Your task to perform on an android device: turn off data saver in the chrome app Image 0: 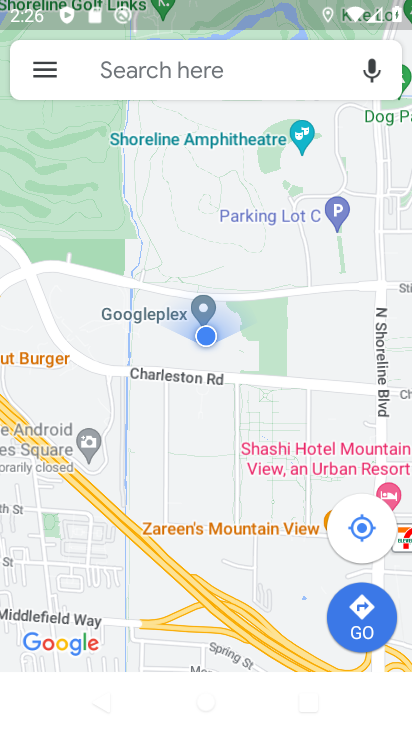
Step 0: click (40, 76)
Your task to perform on an android device: turn off data saver in the chrome app Image 1: 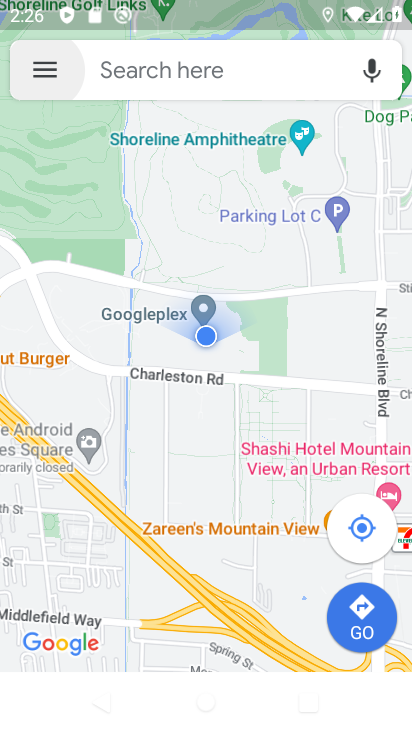
Step 1: click (40, 76)
Your task to perform on an android device: turn off data saver in the chrome app Image 2: 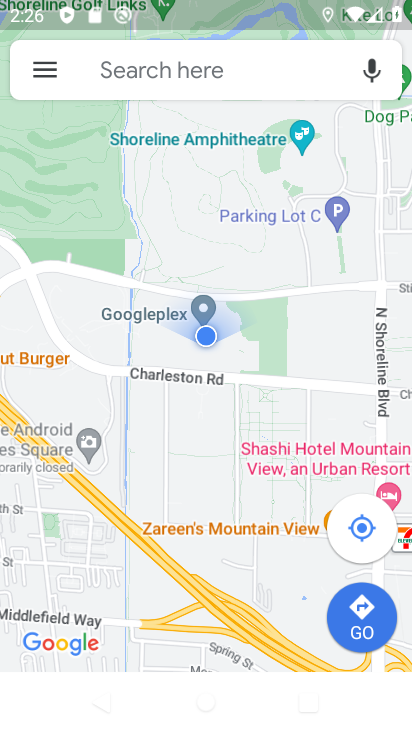
Step 2: click (53, 74)
Your task to perform on an android device: turn off data saver in the chrome app Image 3: 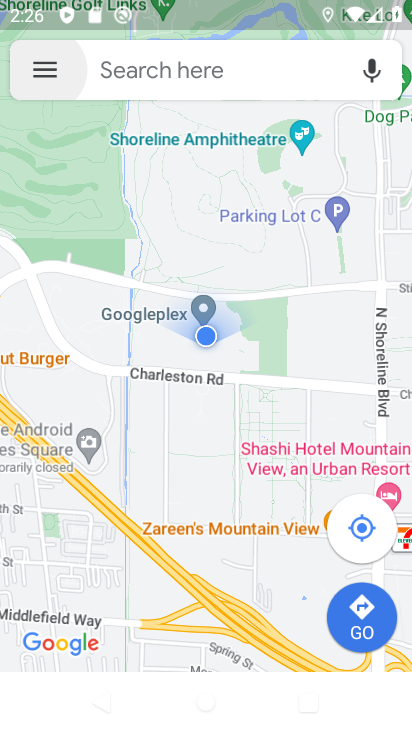
Step 3: click (53, 74)
Your task to perform on an android device: turn off data saver in the chrome app Image 4: 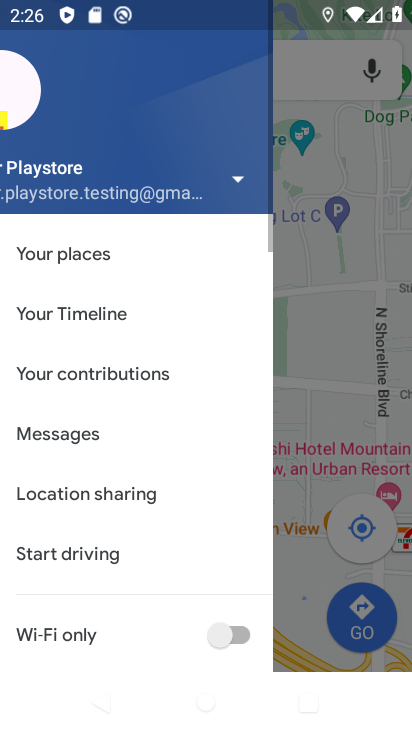
Step 4: click (53, 74)
Your task to perform on an android device: turn off data saver in the chrome app Image 5: 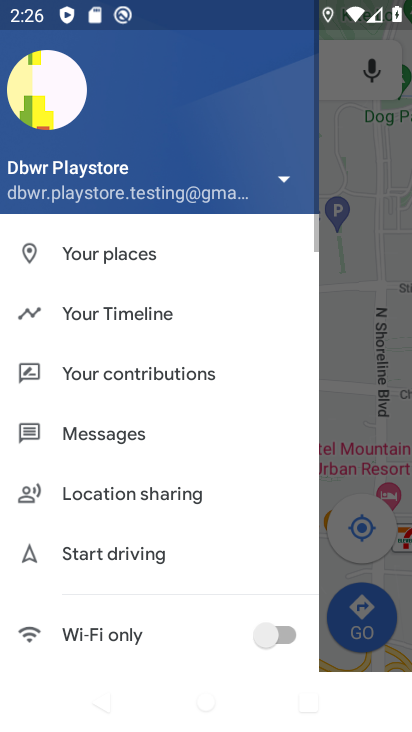
Step 5: click (53, 74)
Your task to perform on an android device: turn off data saver in the chrome app Image 6: 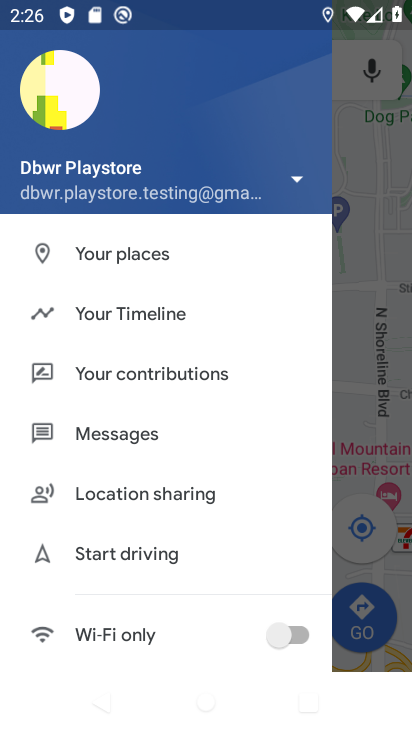
Step 6: press back button
Your task to perform on an android device: turn off data saver in the chrome app Image 7: 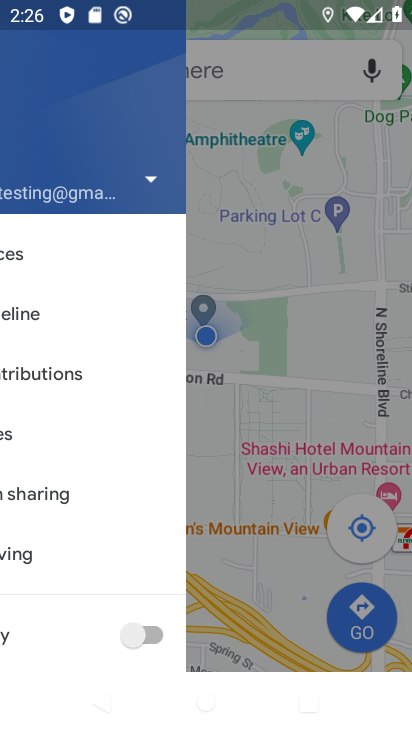
Step 7: press back button
Your task to perform on an android device: turn off data saver in the chrome app Image 8: 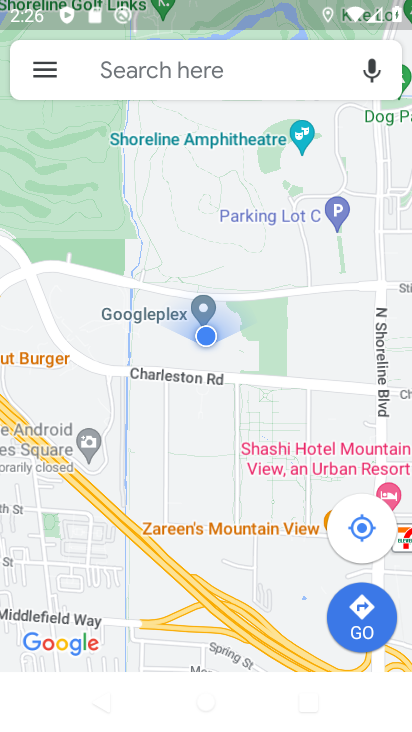
Step 8: press back button
Your task to perform on an android device: turn off data saver in the chrome app Image 9: 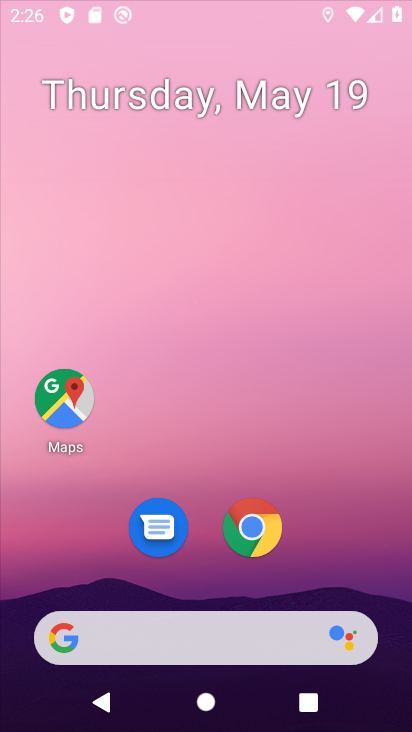
Step 9: press back button
Your task to perform on an android device: turn off data saver in the chrome app Image 10: 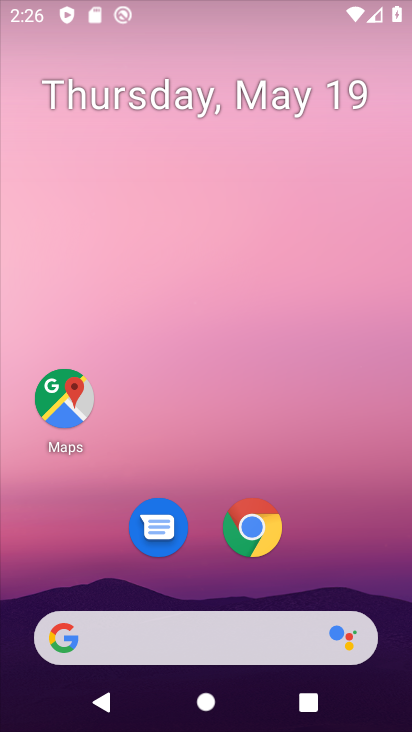
Step 10: press back button
Your task to perform on an android device: turn off data saver in the chrome app Image 11: 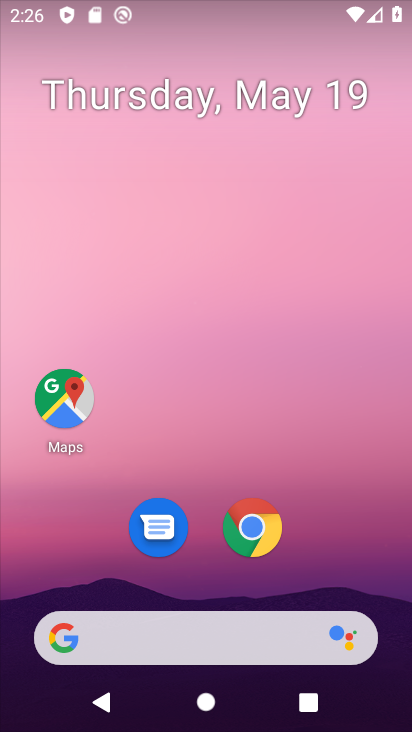
Step 11: press back button
Your task to perform on an android device: turn off data saver in the chrome app Image 12: 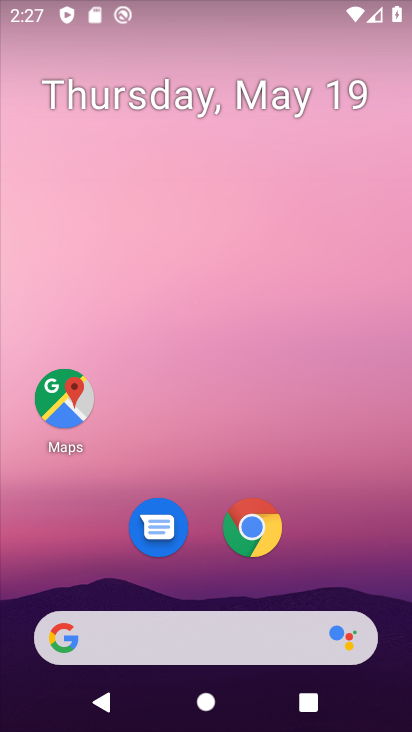
Step 12: press back button
Your task to perform on an android device: turn off data saver in the chrome app Image 13: 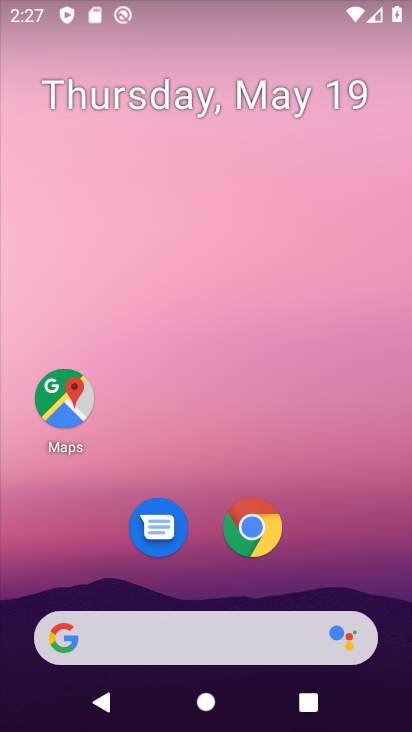
Step 13: drag from (321, 596) to (153, 25)
Your task to perform on an android device: turn off data saver in the chrome app Image 14: 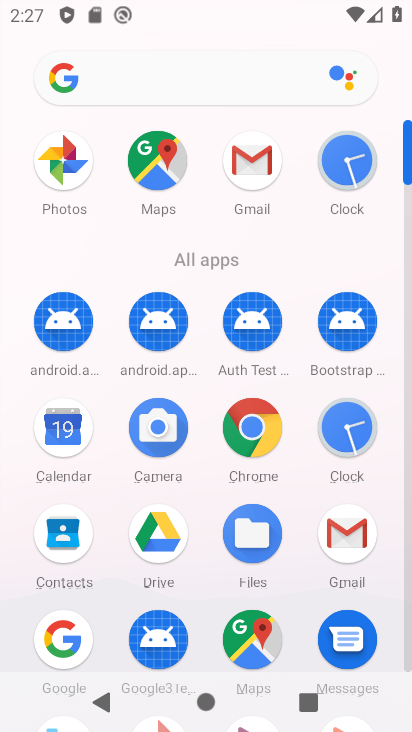
Step 14: drag from (248, 564) to (158, 45)
Your task to perform on an android device: turn off data saver in the chrome app Image 15: 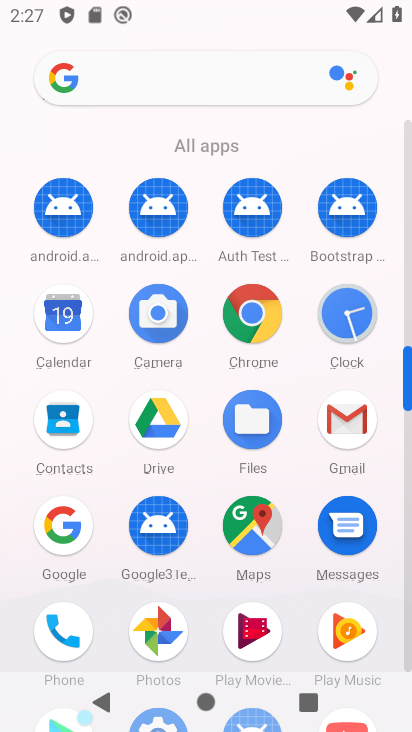
Step 15: click (235, 318)
Your task to perform on an android device: turn off data saver in the chrome app Image 16: 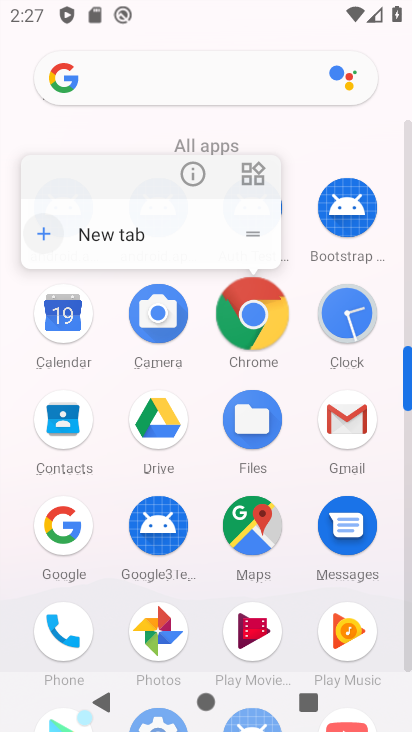
Step 16: click (238, 321)
Your task to perform on an android device: turn off data saver in the chrome app Image 17: 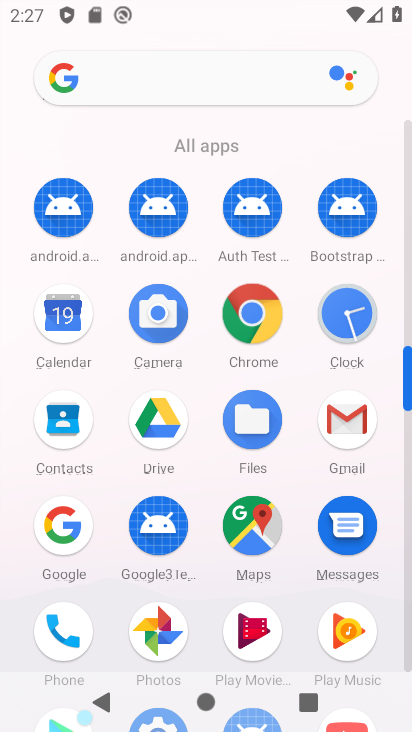
Step 17: click (239, 319)
Your task to perform on an android device: turn off data saver in the chrome app Image 18: 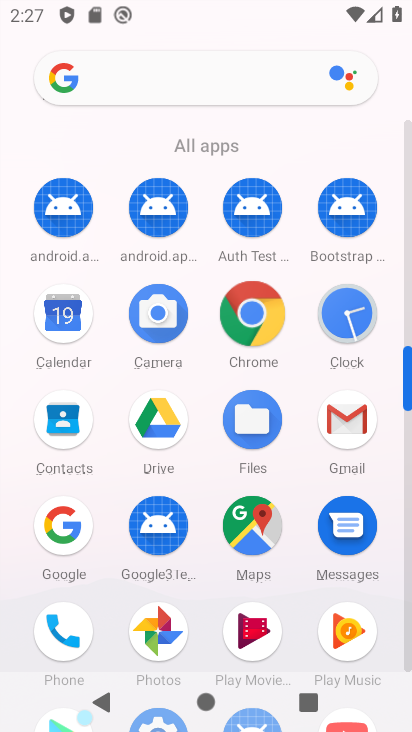
Step 18: click (239, 319)
Your task to perform on an android device: turn off data saver in the chrome app Image 19: 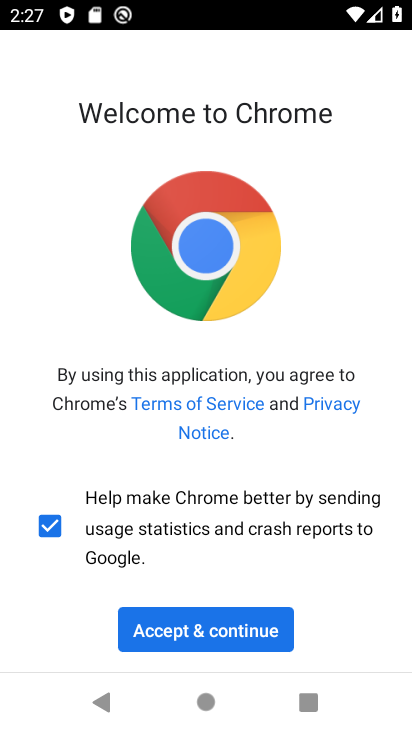
Step 19: click (211, 629)
Your task to perform on an android device: turn off data saver in the chrome app Image 20: 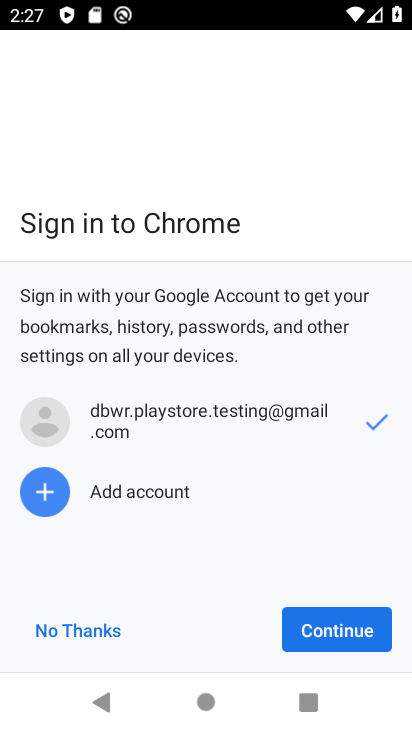
Step 20: click (210, 629)
Your task to perform on an android device: turn off data saver in the chrome app Image 21: 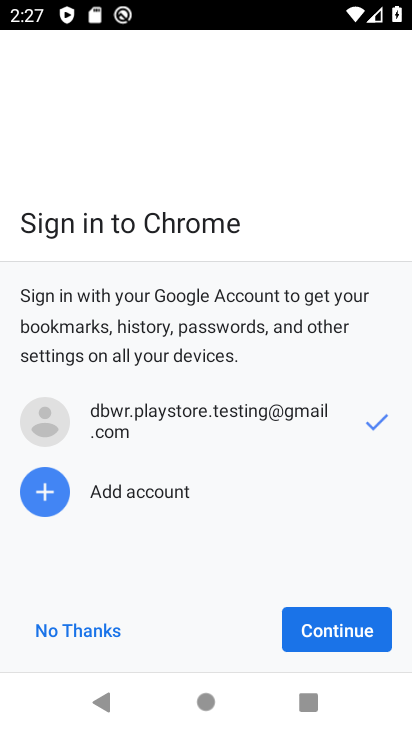
Step 21: click (211, 626)
Your task to perform on an android device: turn off data saver in the chrome app Image 22: 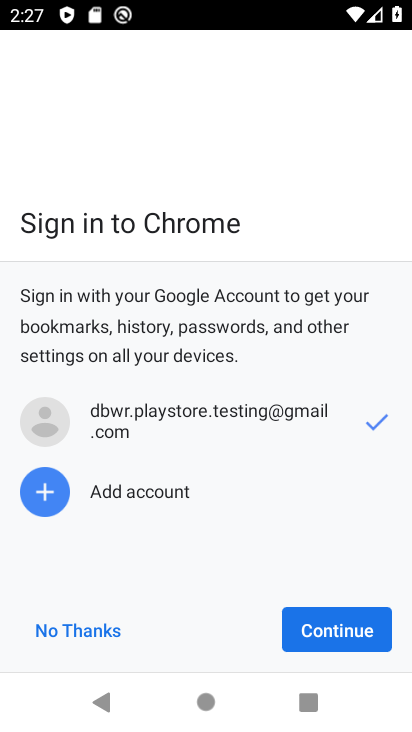
Step 22: click (335, 638)
Your task to perform on an android device: turn off data saver in the chrome app Image 23: 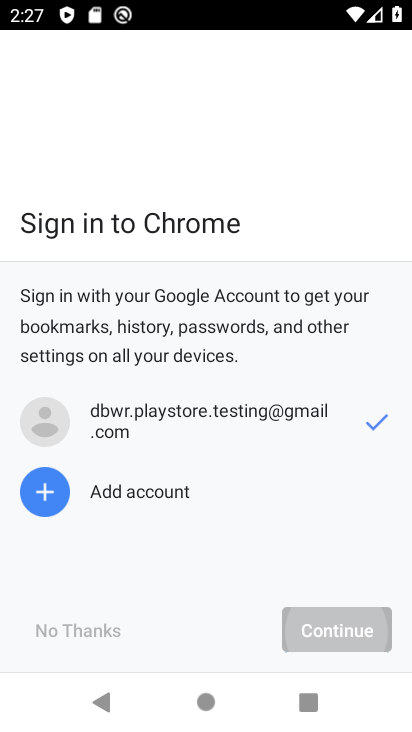
Step 23: click (336, 638)
Your task to perform on an android device: turn off data saver in the chrome app Image 24: 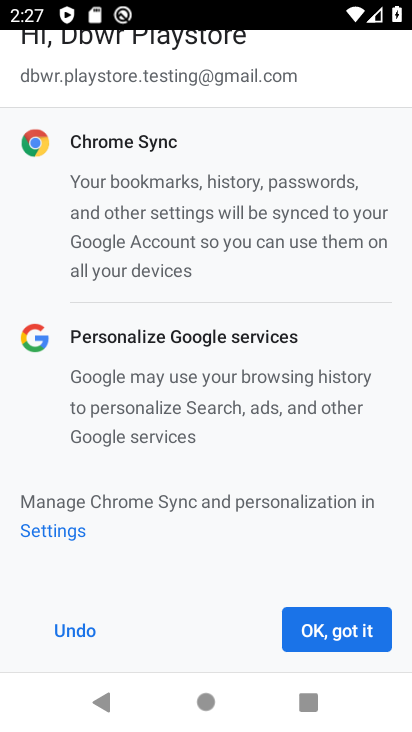
Step 24: click (344, 616)
Your task to perform on an android device: turn off data saver in the chrome app Image 25: 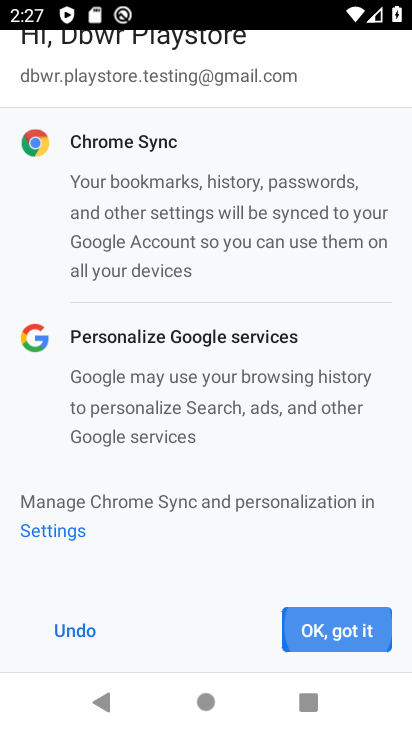
Step 25: click (344, 616)
Your task to perform on an android device: turn off data saver in the chrome app Image 26: 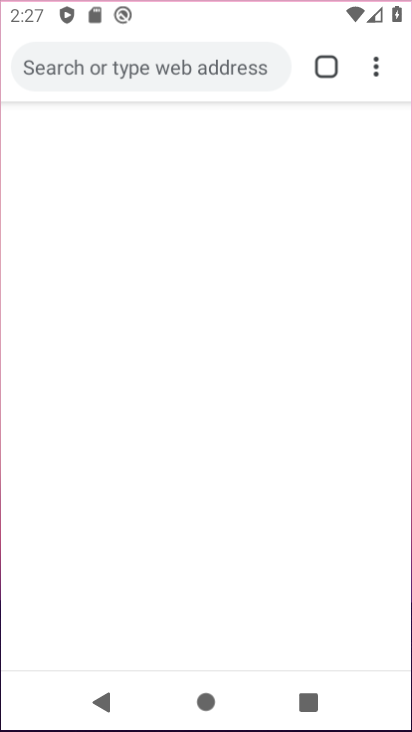
Step 26: click (356, 603)
Your task to perform on an android device: turn off data saver in the chrome app Image 27: 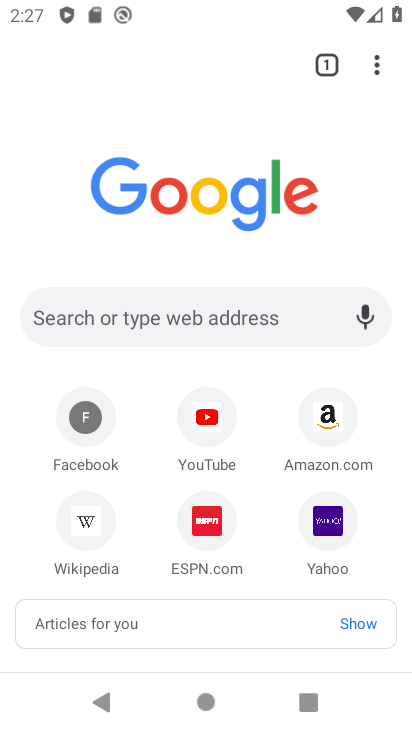
Step 27: drag from (373, 62) to (140, 544)
Your task to perform on an android device: turn off data saver in the chrome app Image 28: 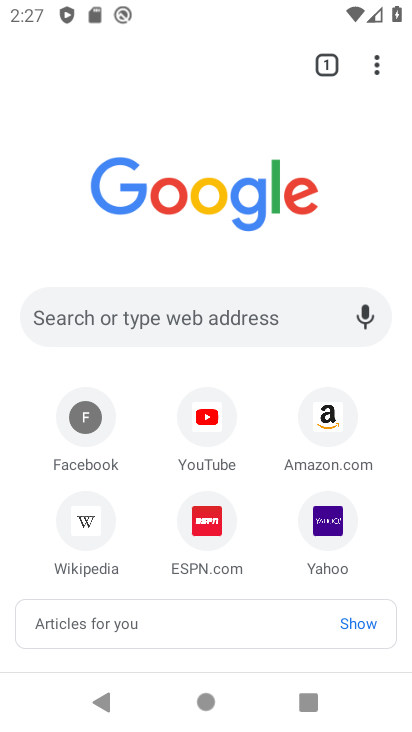
Step 28: click (139, 545)
Your task to perform on an android device: turn off data saver in the chrome app Image 29: 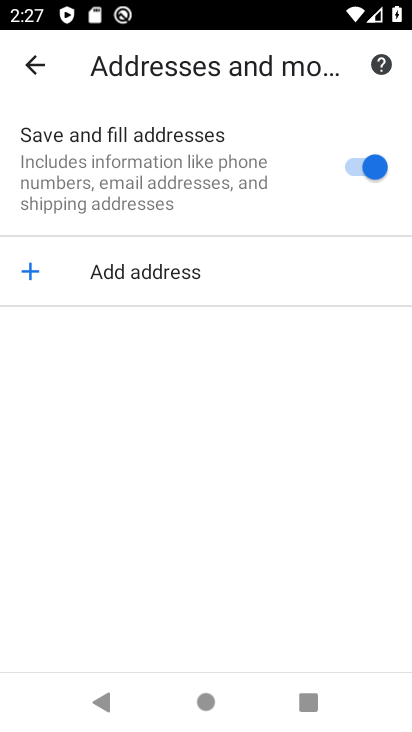
Step 29: click (32, 68)
Your task to perform on an android device: turn off data saver in the chrome app Image 30: 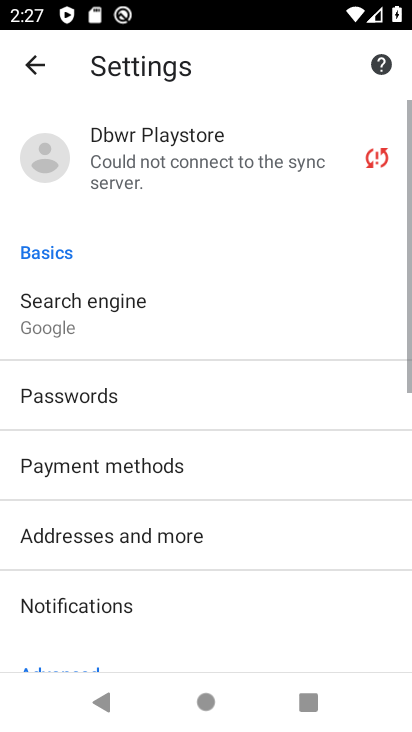
Step 30: drag from (178, 511) to (149, 16)
Your task to perform on an android device: turn off data saver in the chrome app Image 31: 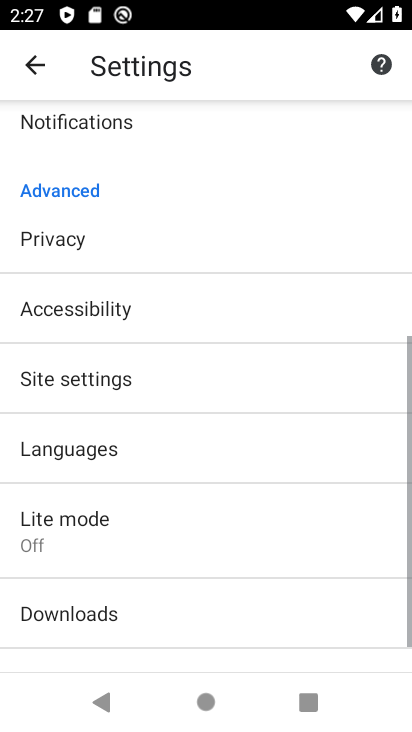
Step 31: drag from (177, 349) to (113, 84)
Your task to perform on an android device: turn off data saver in the chrome app Image 32: 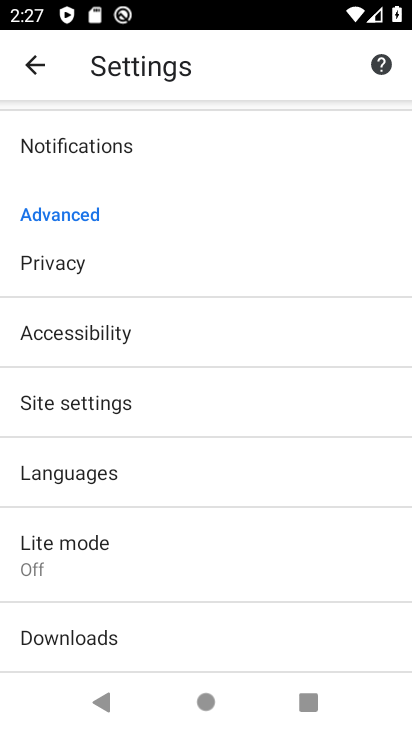
Step 32: click (64, 541)
Your task to perform on an android device: turn off data saver in the chrome app Image 33: 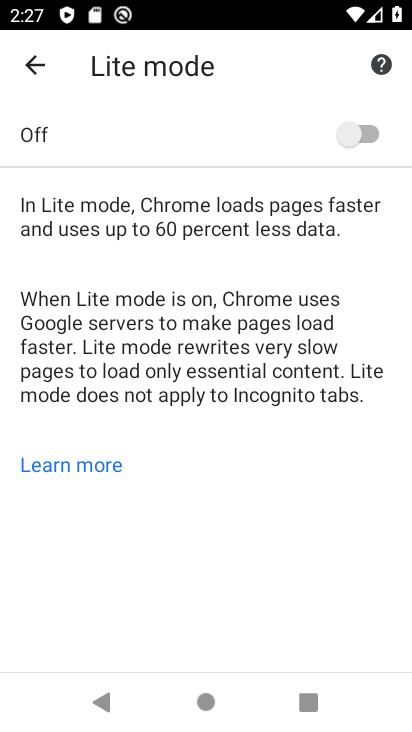
Step 33: task complete